Your task to perform on an android device: open app "Adobe Acrobat Reader" (install if not already installed) and go to login screen Image 0: 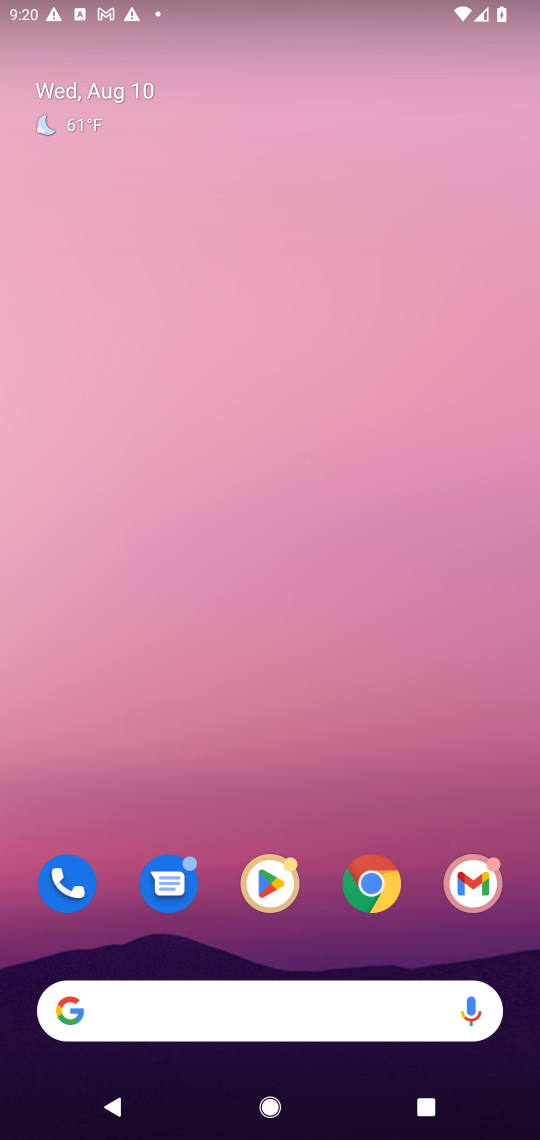
Step 0: click (271, 879)
Your task to perform on an android device: open app "Adobe Acrobat Reader" (install if not already installed) and go to login screen Image 1: 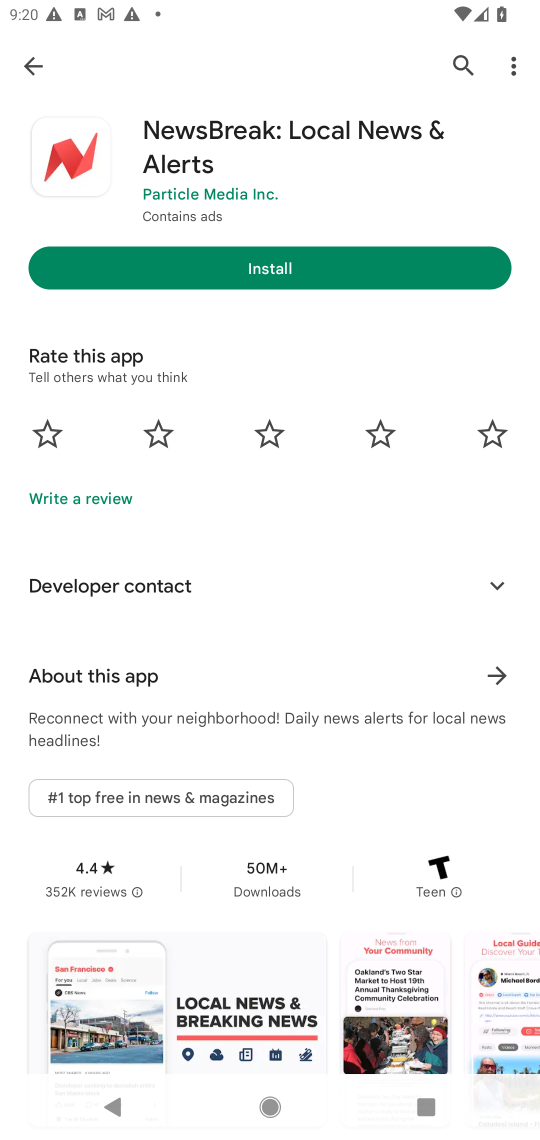
Step 1: click (453, 66)
Your task to perform on an android device: open app "Adobe Acrobat Reader" (install if not already installed) and go to login screen Image 2: 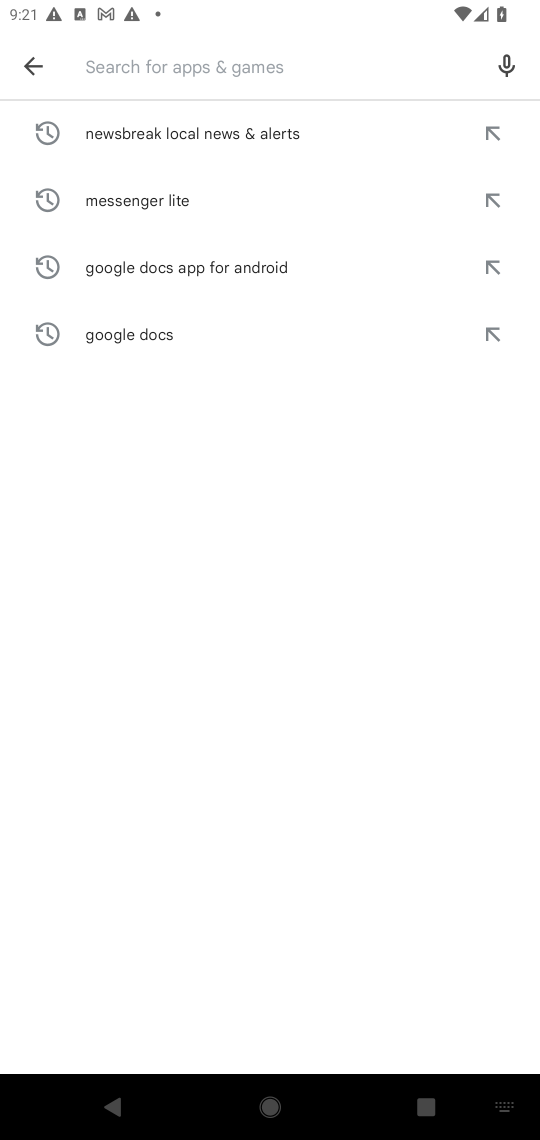
Step 2: type "Adobe Acrobat Reader"
Your task to perform on an android device: open app "Adobe Acrobat Reader" (install if not already installed) and go to login screen Image 3: 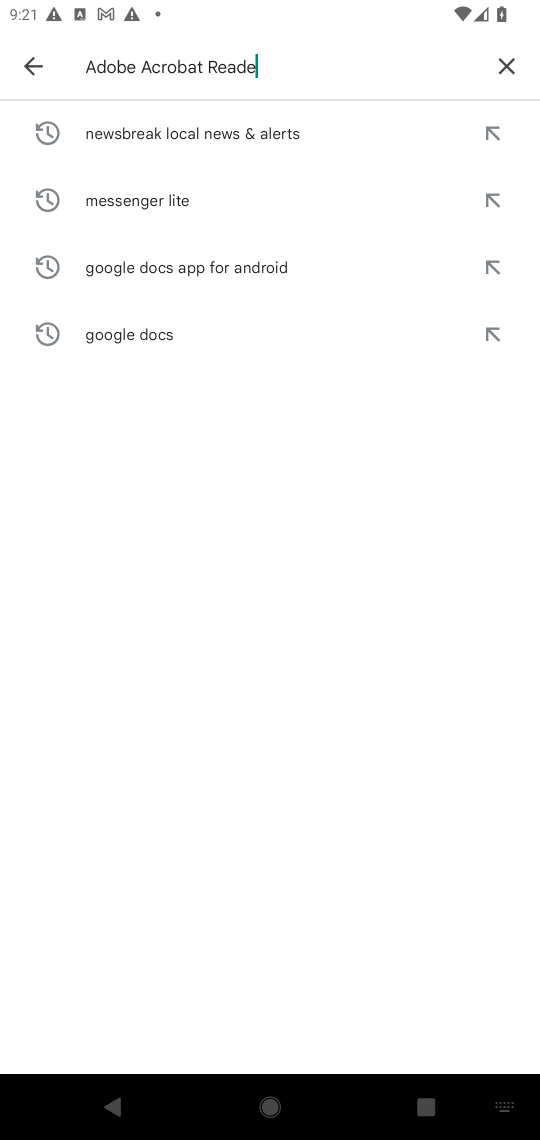
Step 3: type ""
Your task to perform on an android device: open app "Adobe Acrobat Reader" (install if not already installed) and go to login screen Image 4: 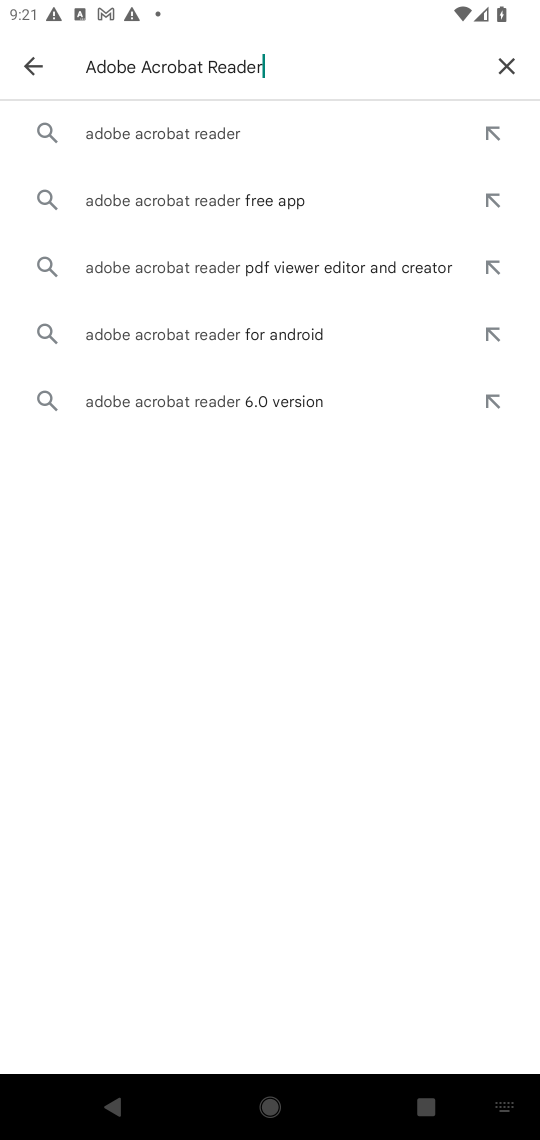
Step 4: click (230, 127)
Your task to perform on an android device: open app "Adobe Acrobat Reader" (install if not already installed) and go to login screen Image 5: 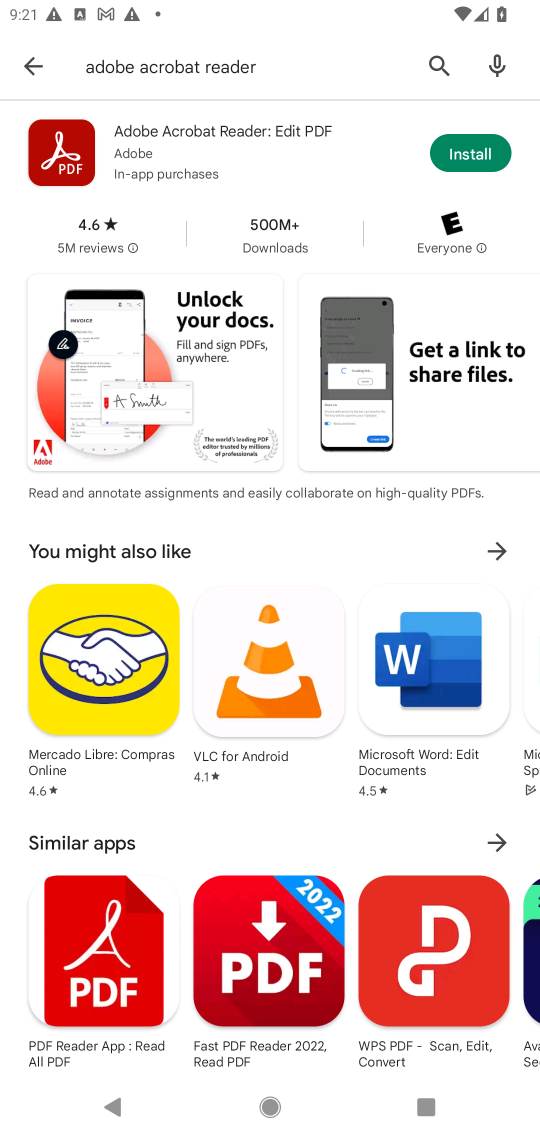
Step 5: click (464, 155)
Your task to perform on an android device: open app "Adobe Acrobat Reader" (install if not already installed) and go to login screen Image 6: 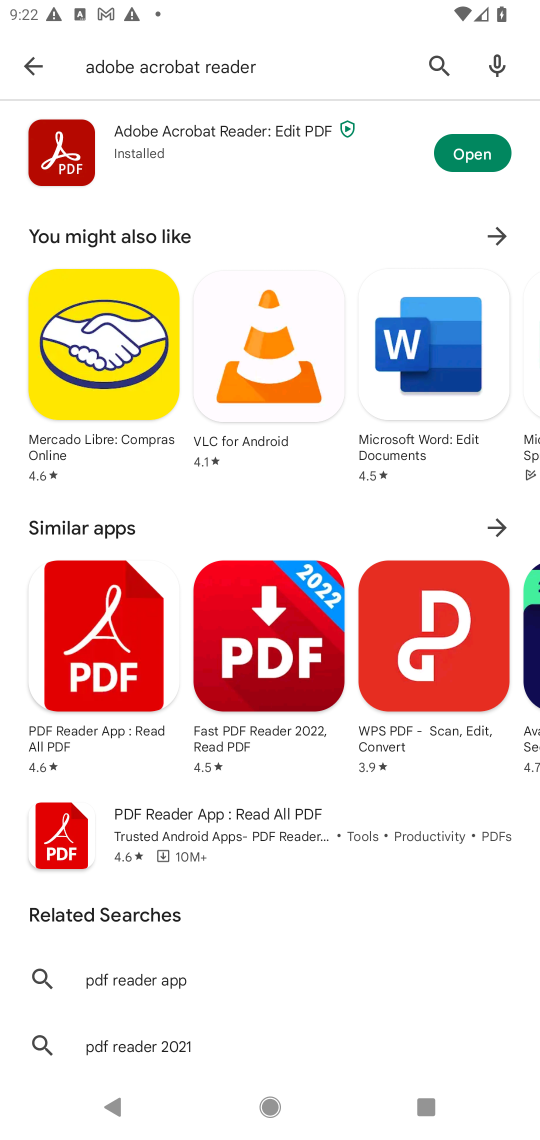
Step 6: click (495, 159)
Your task to perform on an android device: open app "Adobe Acrobat Reader" (install if not already installed) and go to login screen Image 7: 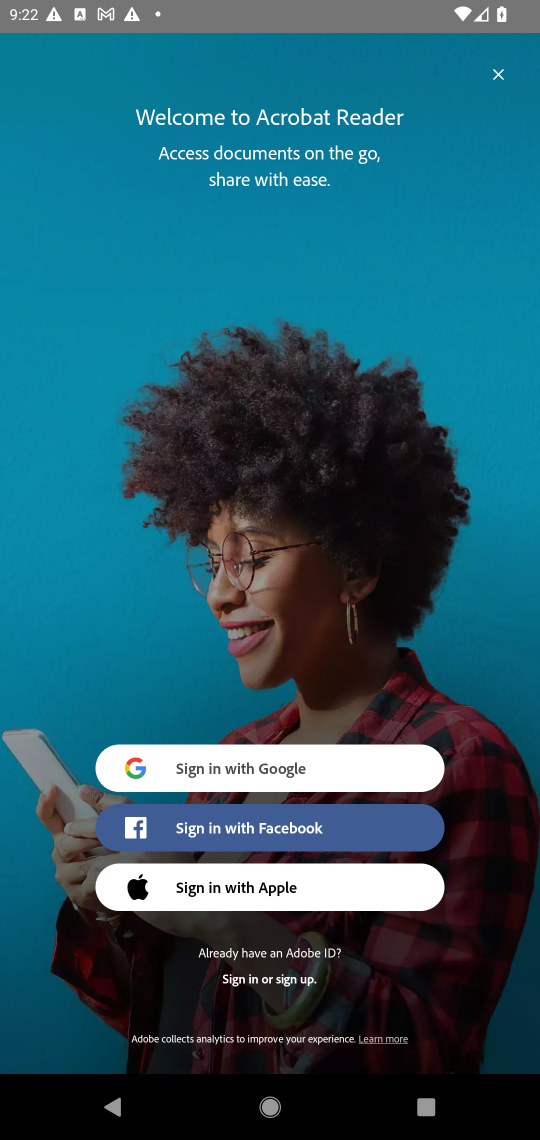
Step 7: task complete